Your task to perform on an android device: Go to calendar. Show me events next week Image 0: 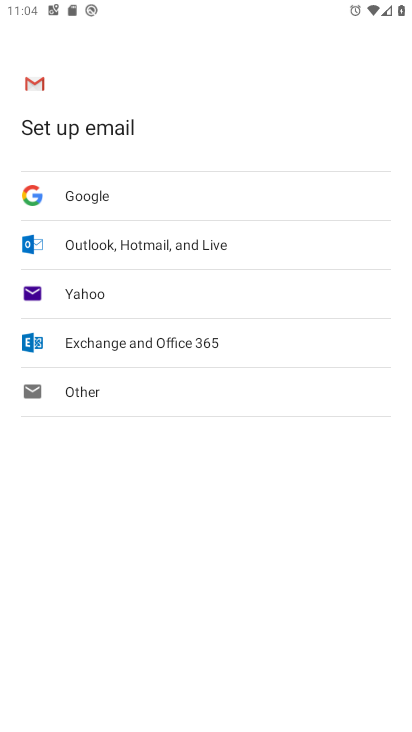
Step 0: press home button
Your task to perform on an android device: Go to calendar. Show me events next week Image 1: 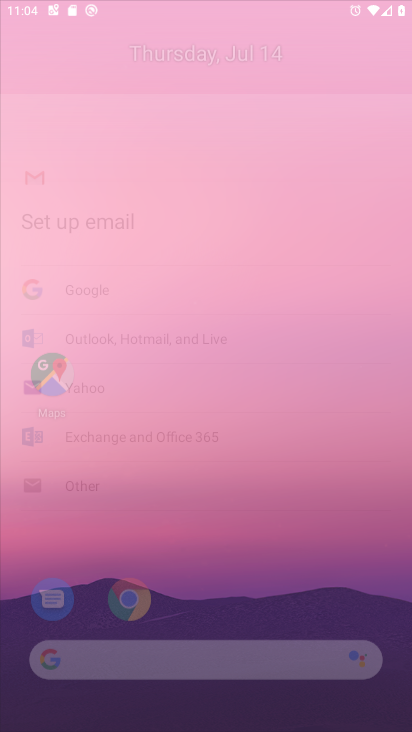
Step 1: drag from (191, 641) to (188, 233)
Your task to perform on an android device: Go to calendar. Show me events next week Image 2: 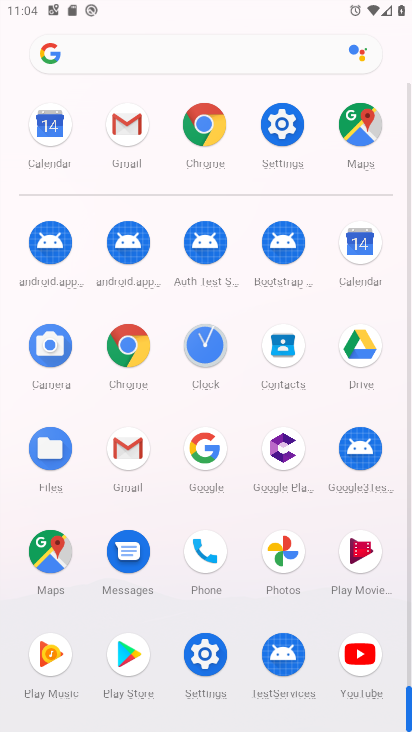
Step 2: click (358, 245)
Your task to perform on an android device: Go to calendar. Show me events next week Image 3: 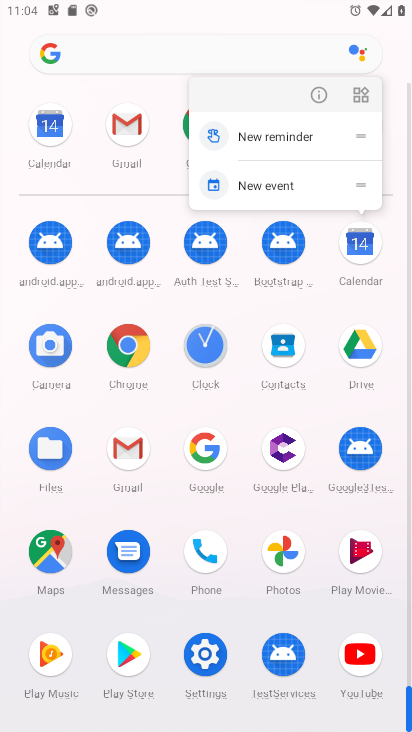
Step 3: click (322, 88)
Your task to perform on an android device: Go to calendar. Show me events next week Image 4: 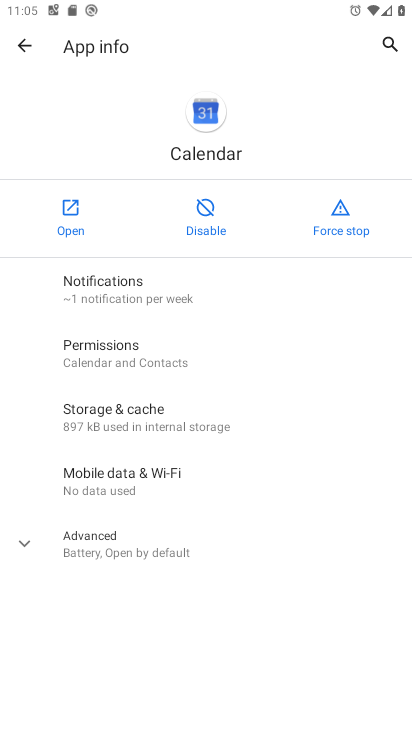
Step 4: click (78, 215)
Your task to perform on an android device: Go to calendar. Show me events next week Image 5: 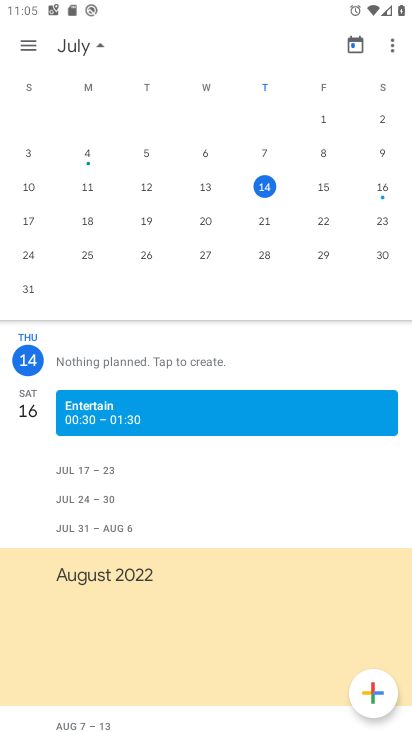
Step 5: click (323, 219)
Your task to perform on an android device: Go to calendar. Show me events next week Image 6: 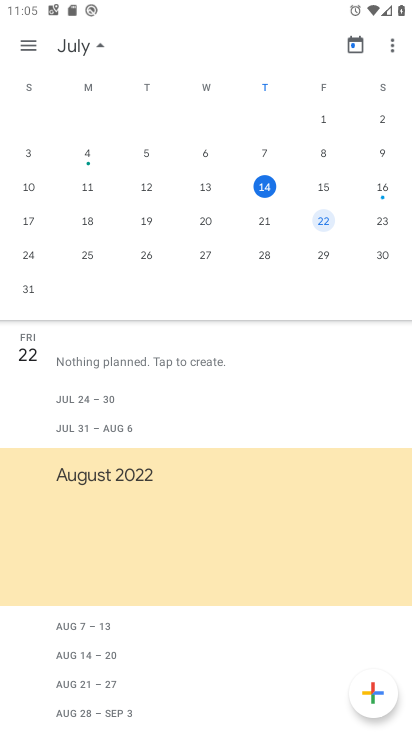
Step 6: task complete